Your task to perform on an android device: turn off airplane mode Image 0: 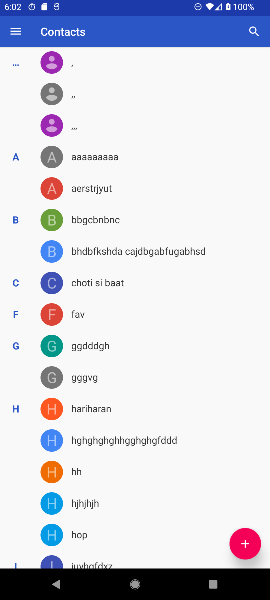
Step 0: press back button
Your task to perform on an android device: turn off airplane mode Image 1: 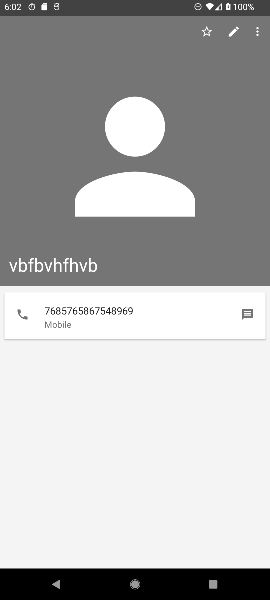
Step 1: press back button
Your task to perform on an android device: turn off airplane mode Image 2: 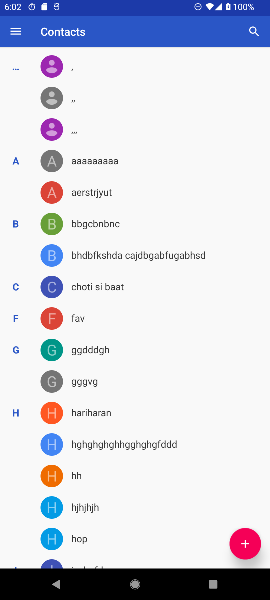
Step 2: press back button
Your task to perform on an android device: turn off airplane mode Image 3: 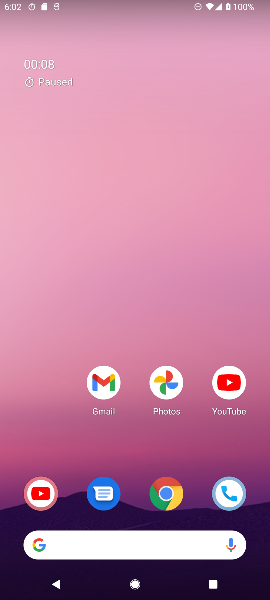
Step 3: drag from (108, 485) to (48, 162)
Your task to perform on an android device: turn off airplane mode Image 4: 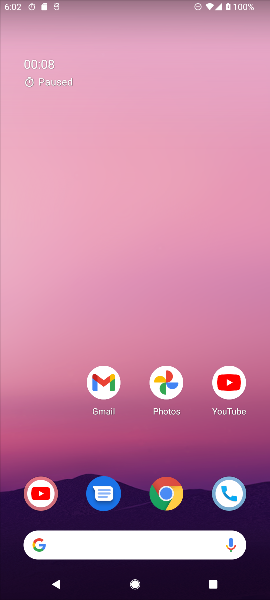
Step 4: drag from (145, 382) to (124, 202)
Your task to perform on an android device: turn off airplane mode Image 5: 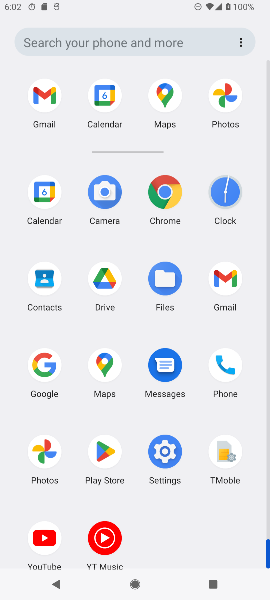
Step 5: drag from (122, 513) to (85, 31)
Your task to perform on an android device: turn off airplane mode Image 6: 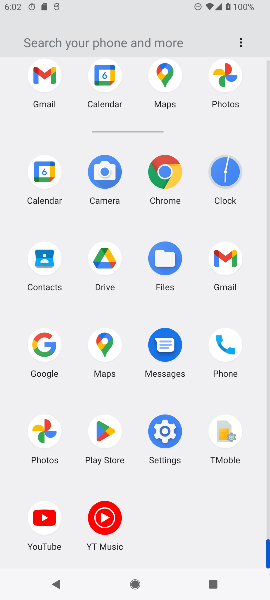
Step 6: click (168, 437)
Your task to perform on an android device: turn off airplane mode Image 7: 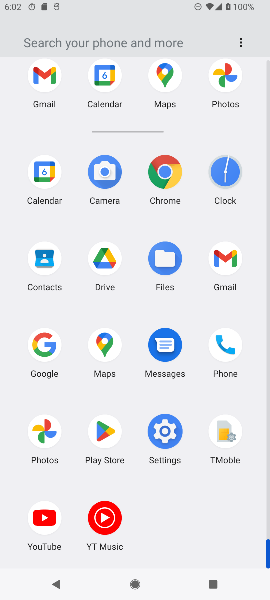
Step 7: click (162, 431)
Your task to perform on an android device: turn off airplane mode Image 8: 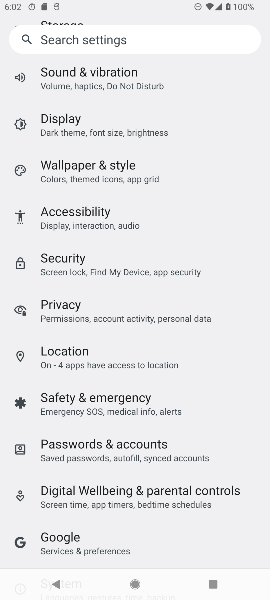
Step 8: drag from (66, 139) to (74, 285)
Your task to perform on an android device: turn off airplane mode Image 9: 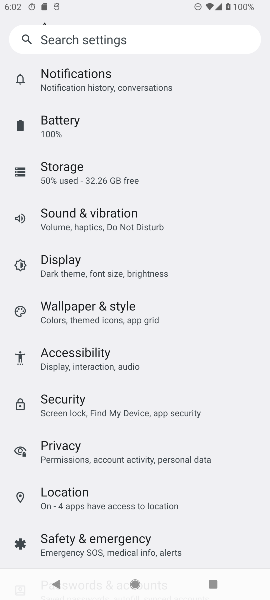
Step 9: drag from (57, 92) to (85, 454)
Your task to perform on an android device: turn off airplane mode Image 10: 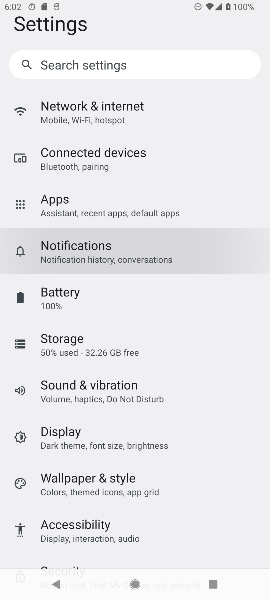
Step 10: drag from (103, 171) to (104, 388)
Your task to perform on an android device: turn off airplane mode Image 11: 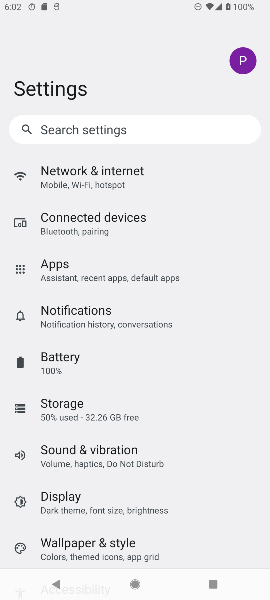
Step 11: click (81, 182)
Your task to perform on an android device: turn off airplane mode Image 12: 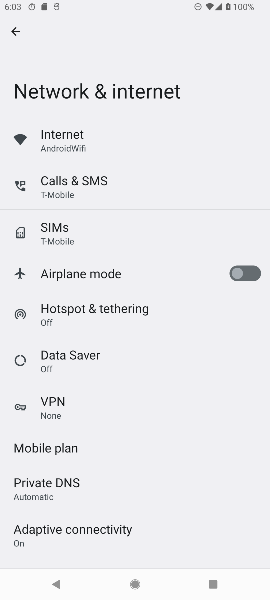
Step 12: task complete